Your task to perform on an android device: Open the web browser Image 0: 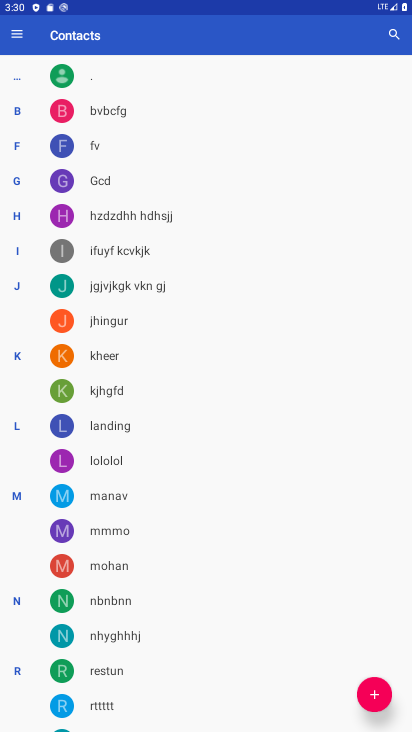
Step 0: press home button
Your task to perform on an android device: Open the web browser Image 1: 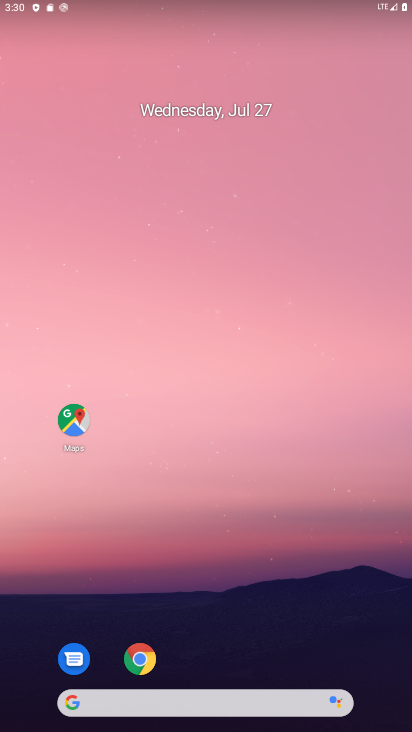
Step 1: click (144, 663)
Your task to perform on an android device: Open the web browser Image 2: 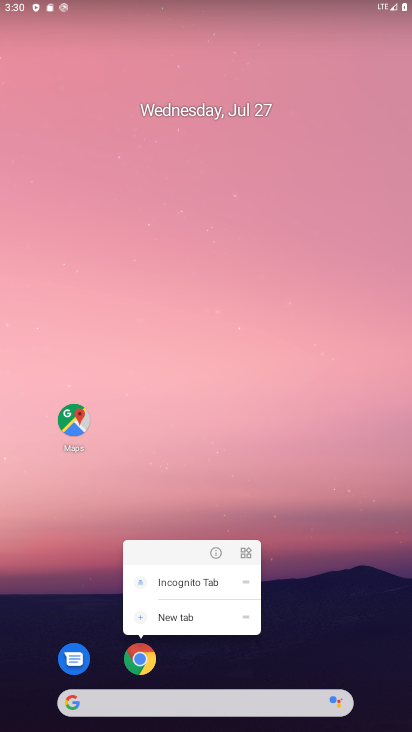
Step 2: click (144, 663)
Your task to perform on an android device: Open the web browser Image 3: 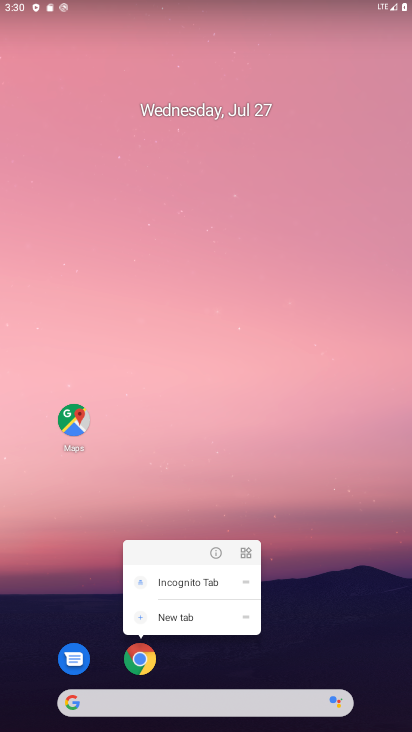
Step 3: click (144, 663)
Your task to perform on an android device: Open the web browser Image 4: 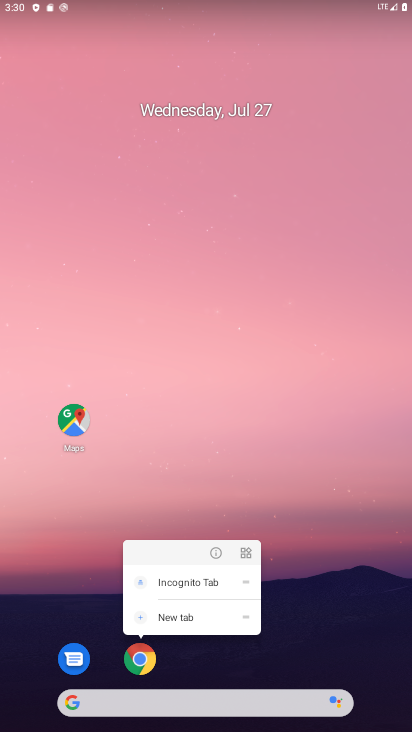
Step 4: click (144, 663)
Your task to perform on an android device: Open the web browser Image 5: 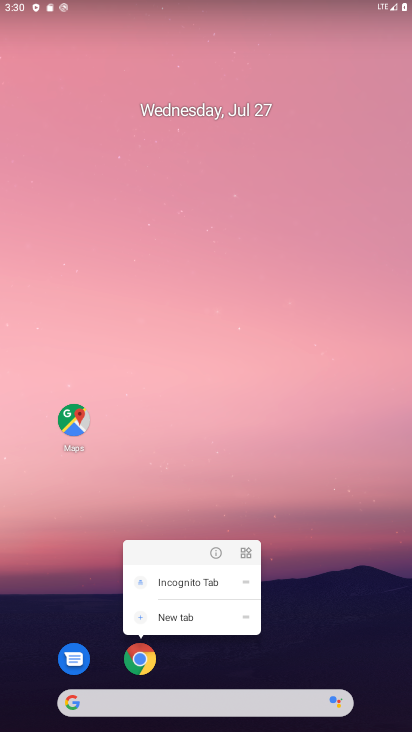
Step 5: click (144, 663)
Your task to perform on an android device: Open the web browser Image 6: 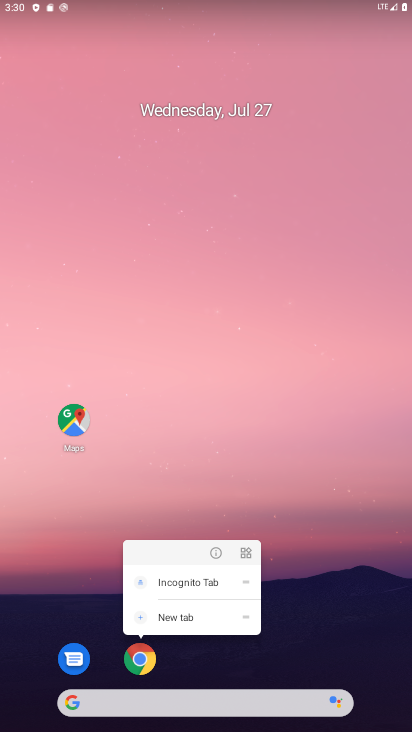
Step 6: click (144, 663)
Your task to perform on an android device: Open the web browser Image 7: 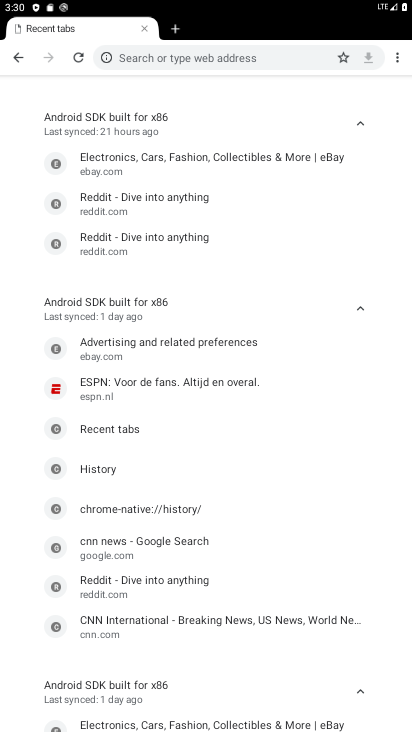
Step 7: task complete